Your task to perform on an android device: Open the web browser Image 0: 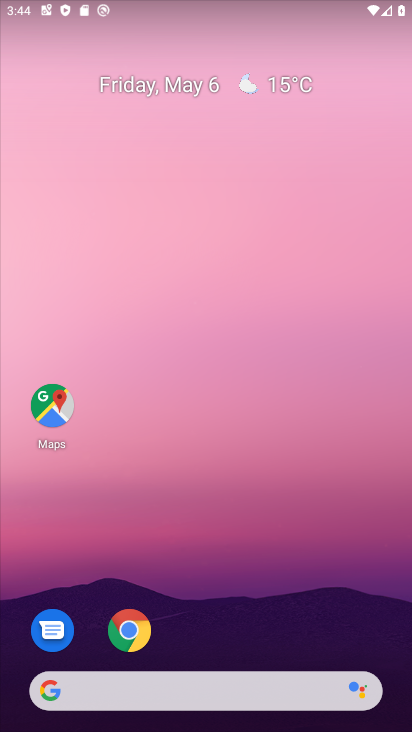
Step 0: click (133, 632)
Your task to perform on an android device: Open the web browser Image 1: 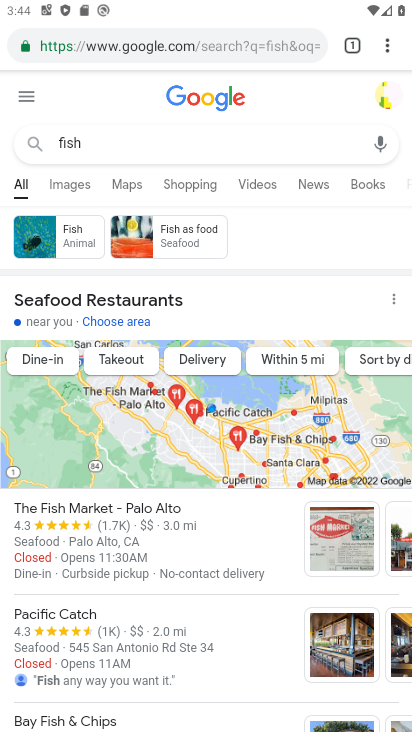
Step 1: task complete